Your task to perform on an android device: Is it going to rain tomorrow? Image 0: 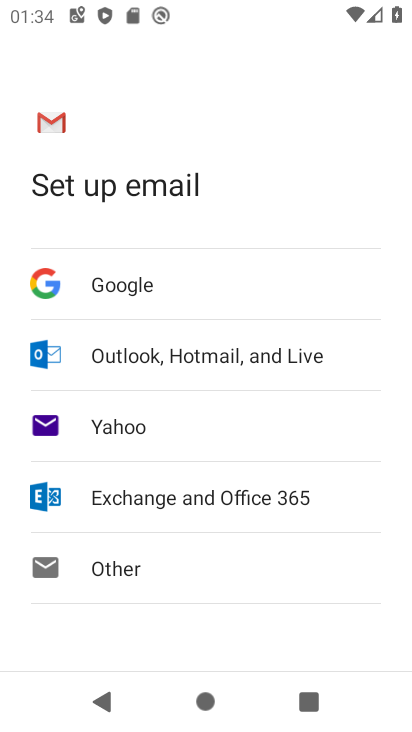
Step 0: press home button
Your task to perform on an android device: Is it going to rain tomorrow? Image 1: 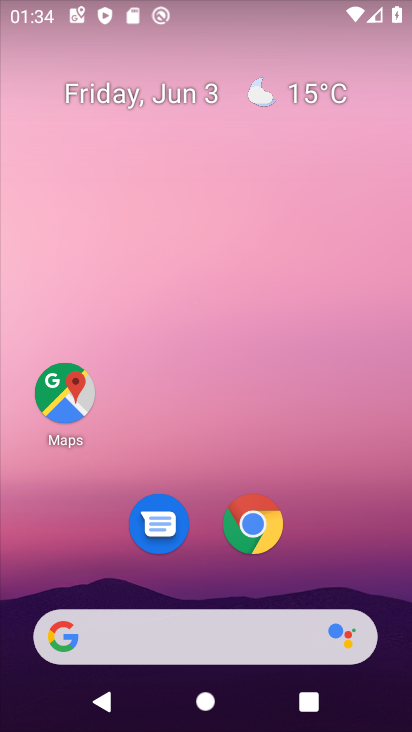
Step 1: click (268, 94)
Your task to perform on an android device: Is it going to rain tomorrow? Image 2: 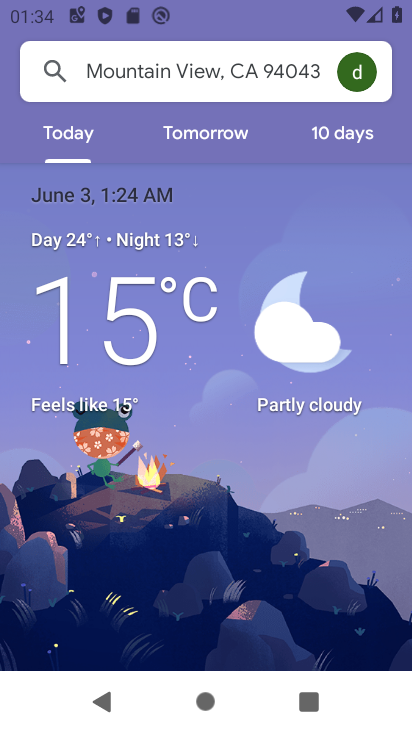
Step 2: click (208, 131)
Your task to perform on an android device: Is it going to rain tomorrow? Image 3: 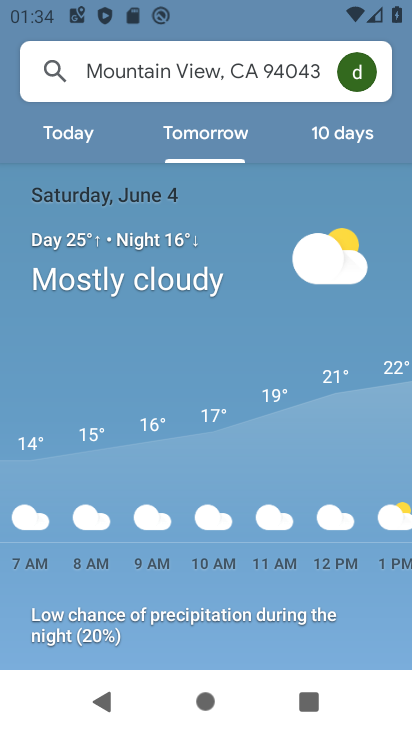
Step 3: task complete